Your task to perform on an android device: Open Android settings Image 0: 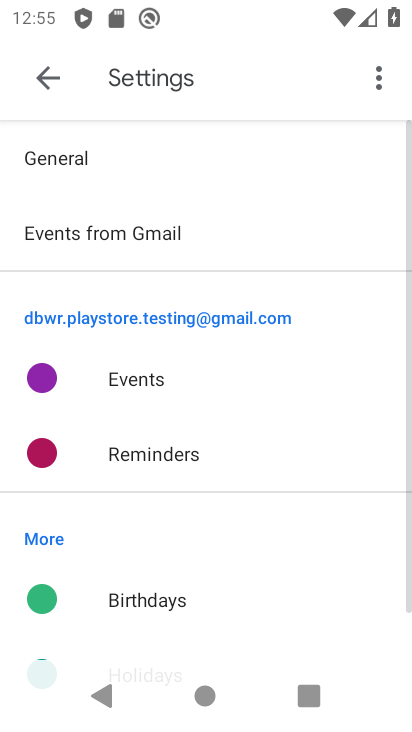
Step 0: press home button
Your task to perform on an android device: Open Android settings Image 1: 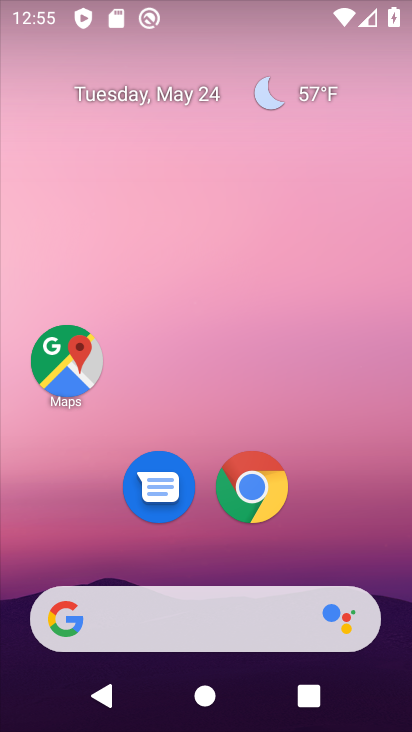
Step 1: drag from (233, 711) to (241, 76)
Your task to perform on an android device: Open Android settings Image 2: 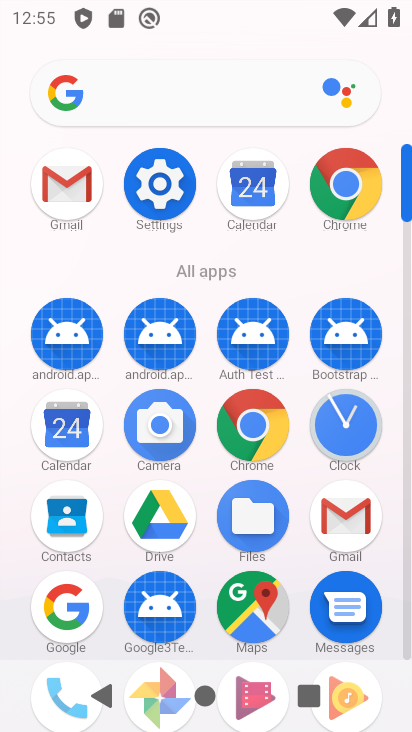
Step 2: click (156, 188)
Your task to perform on an android device: Open Android settings Image 3: 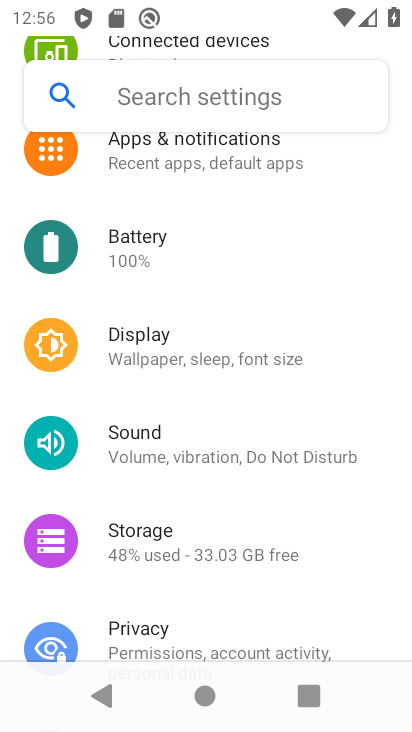
Step 3: task complete